Your task to perform on an android device: delete browsing data in the chrome app Image 0: 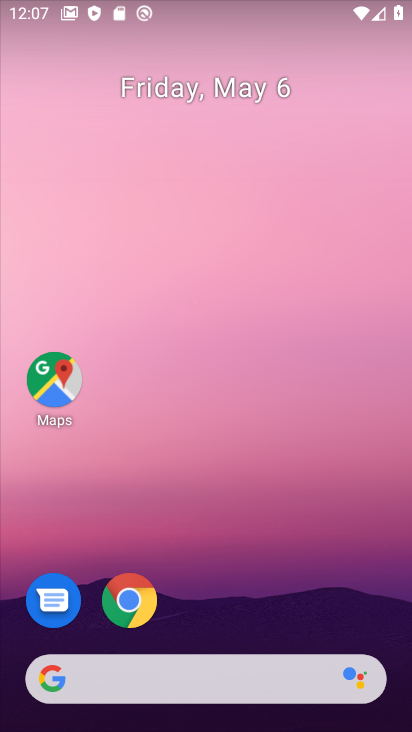
Step 0: click (131, 609)
Your task to perform on an android device: delete browsing data in the chrome app Image 1: 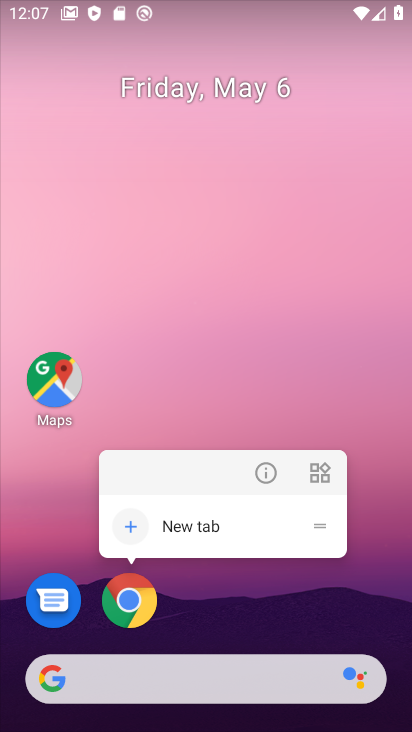
Step 1: click (131, 608)
Your task to perform on an android device: delete browsing data in the chrome app Image 2: 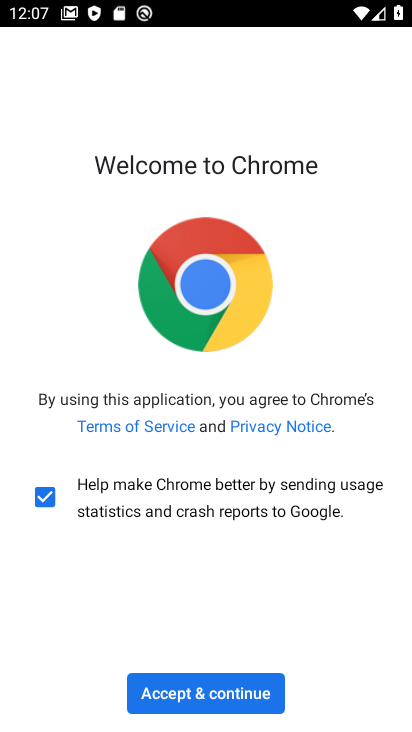
Step 2: click (197, 689)
Your task to perform on an android device: delete browsing data in the chrome app Image 3: 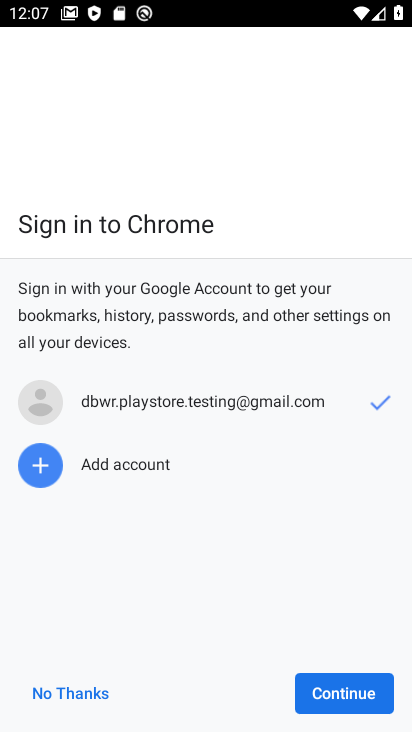
Step 3: click (374, 691)
Your task to perform on an android device: delete browsing data in the chrome app Image 4: 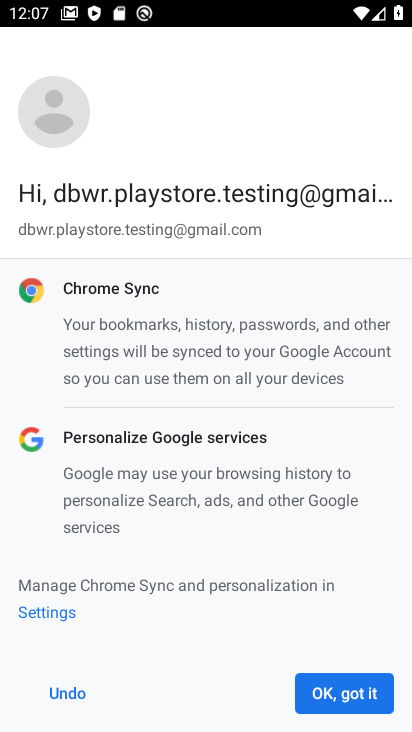
Step 4: click (373, 691)
Your task to perform on an android device: delete browsing data in the chrome app Image 5: 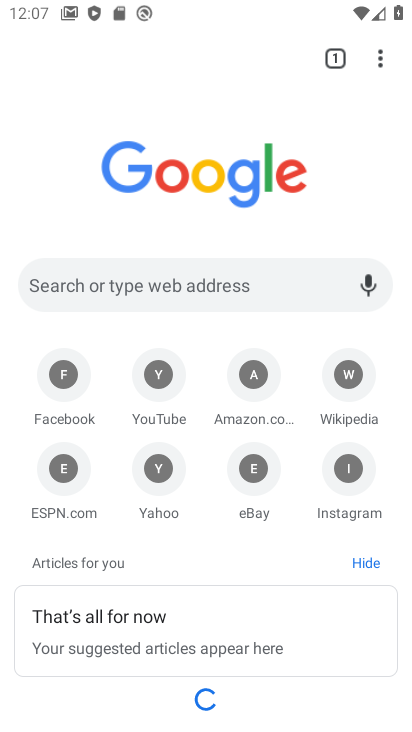
Step 5: drag from (385, 64) to (273, 507)
Your task to perform on an android device: delete browsing data in the chrome app Image 6: 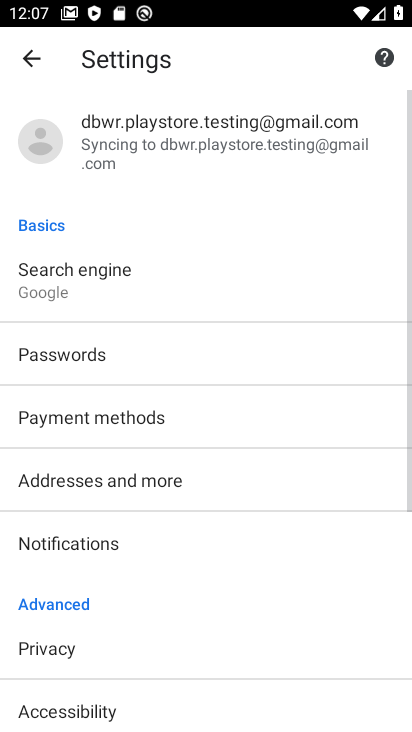
Step 6: click (165, 657)
Your task to perform on an android device: delete browsing data in the chrome app Image 7: 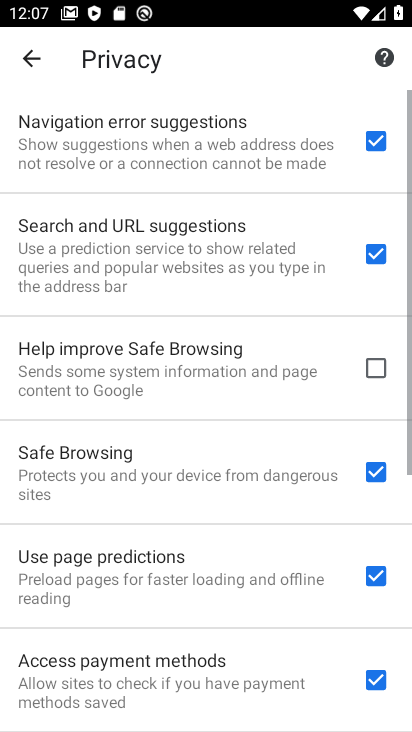
Step 7: drag from (205, 666) to (278, 238)
Your task to perform on an android device: delete browsing data in the chrome app Image 8: 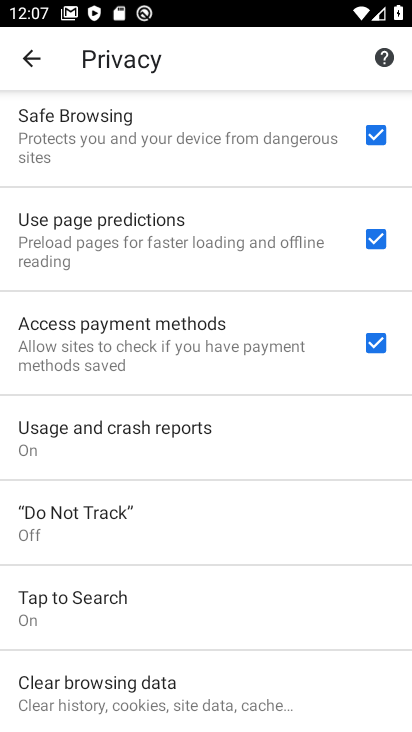
Step 8: click (184, 693)
Your task to perform on an android device: delete browsing data in the chrome app Image 9: 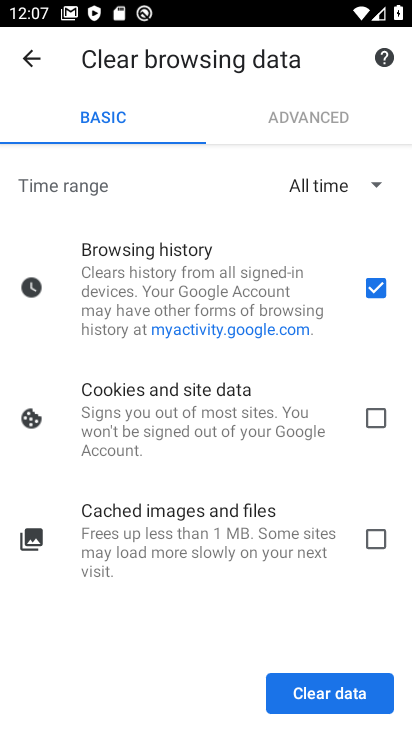
Step 9: click (329, 693)
Your task to perform on an android device: delete browsing data in the chrome app Image 10: 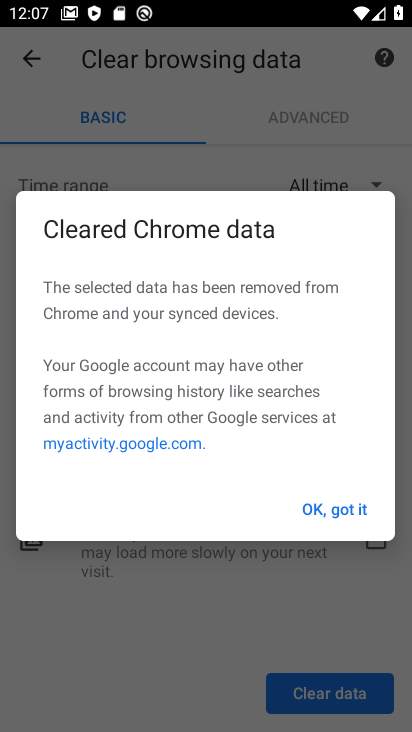
Step 10: click (327, 514)
Your task to perform on an android device: delete browsing data in the chrome app Image 11: 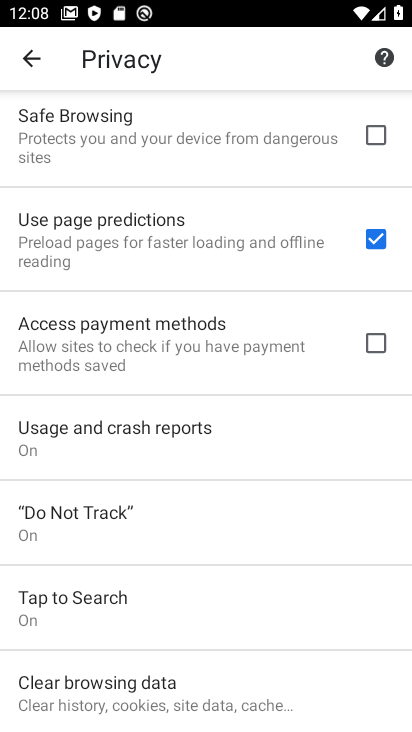
Step 11: task complete